Your task to perform on an android device: Search for vegetarian restaurants on Maps Image 0: 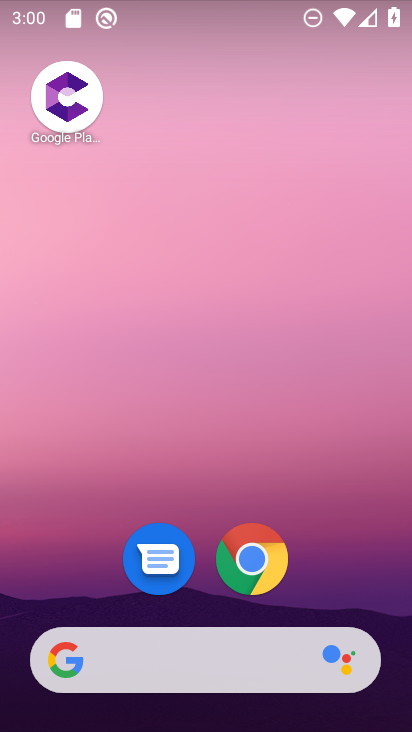
Step 0: drag from (326, 594) to (296, 309)
Your task to perform on an android device: Search for vegetarian restaurants on Maps Image 1: 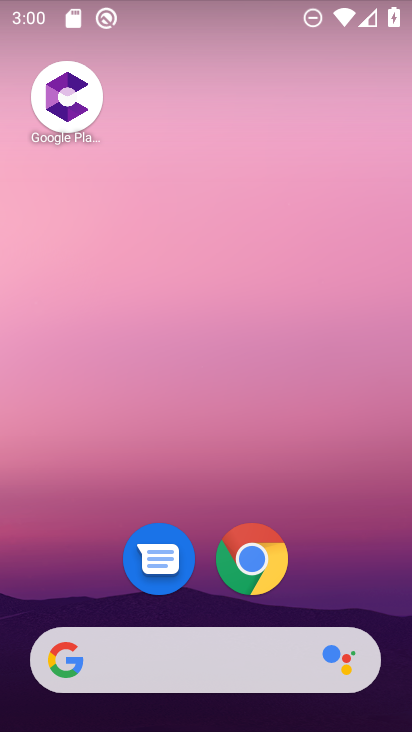
Step 1: drag from (348, 593) to (264, 180)
Your task to perform on an android device: Search for vegetarian restaurants on Maps Image 2: 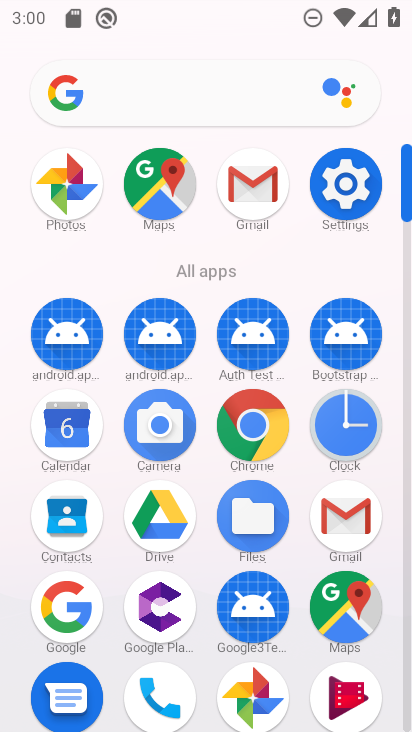
Step 2: click (163, 183)
Your task to perform on an android device: Search for vegetarian restaurants on Maps Image 3: 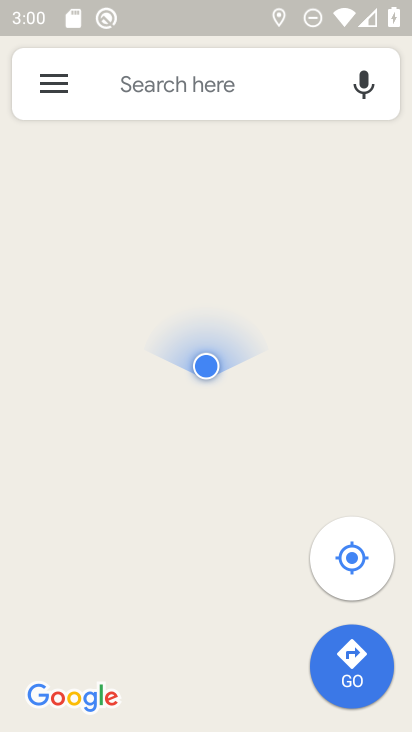
Step 3: click (113, 68)
Your task to perform on an android device: Search for vegetarian restaurants on Maps Image 4: 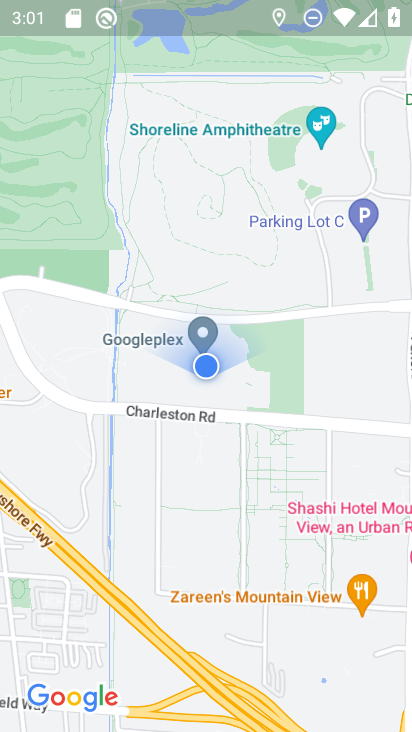
Step 4: press back button
Your task to perform on an android device: Search for vegetarian restaurants on Maps Image 5: 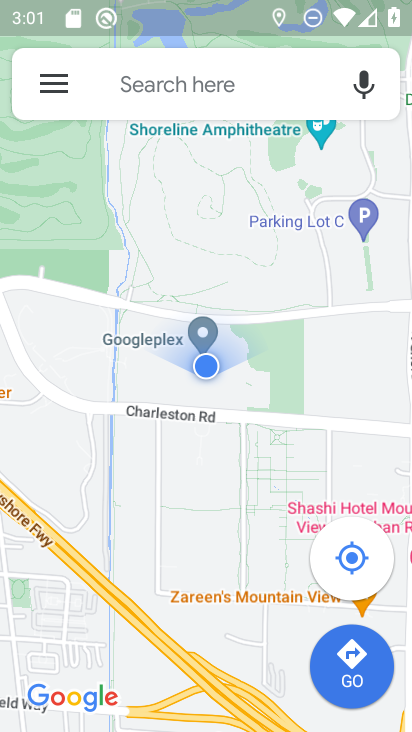
Step 5: click (262, 103)
Your task to perform on an android device: Search for vegetarian restaurants on Maps Image 6: 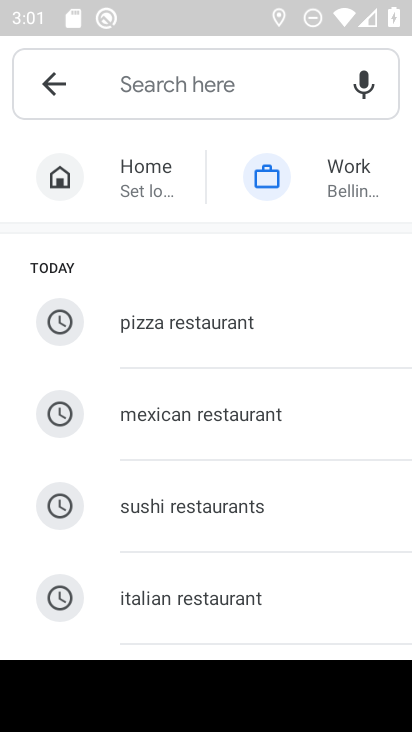
Step 6: type "vegetarian restaurants"
Your task to perform on an android device: Search for vegetarian restaurants on Maps Image 7: 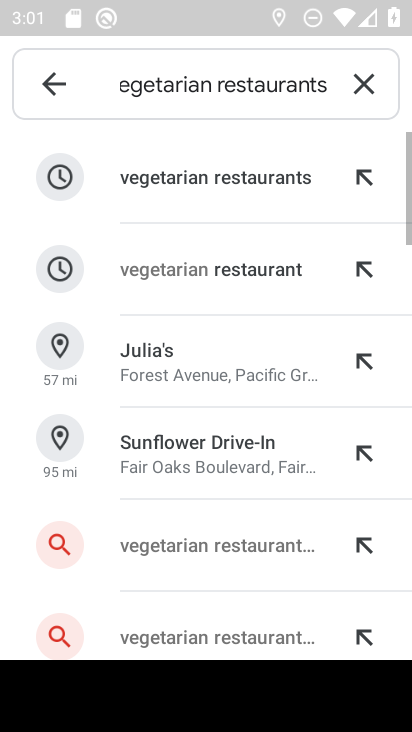
Step 7: click (227, 204)
Your task to perform on an android device: Search for vegetarian restaurants on Maps Image 8: 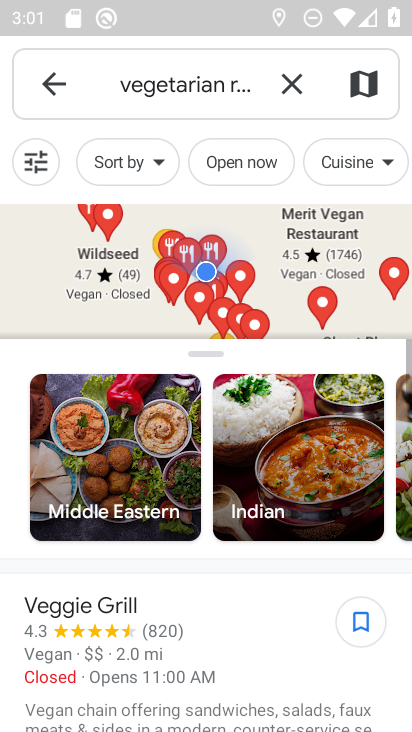
Step 8: task complete